Your task to perform on an android device: Open Google Image 0: 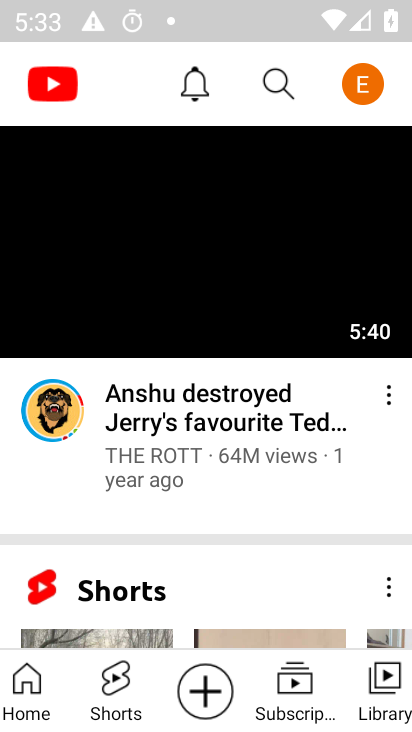
Step 0: press home button
Your task to perform on an android device: Open Google Image 1: 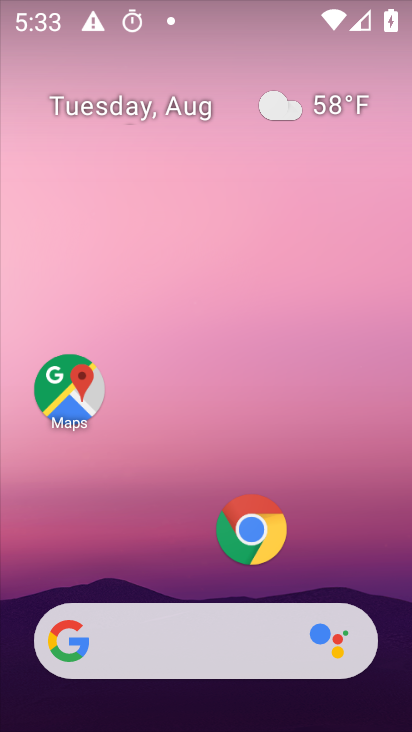
Step 1: drag from (173, 558) to (185, 188)
Your task to perform on an android device: Open Google Image 2: 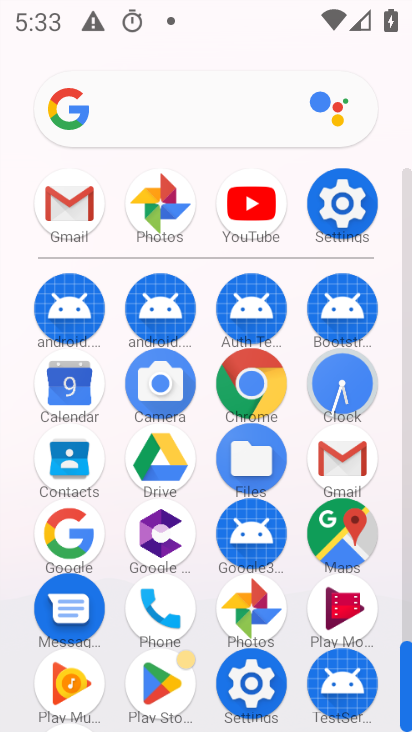
Step 2: click (51, 537)
Your task to perform on an android device: Open Google Image 3: 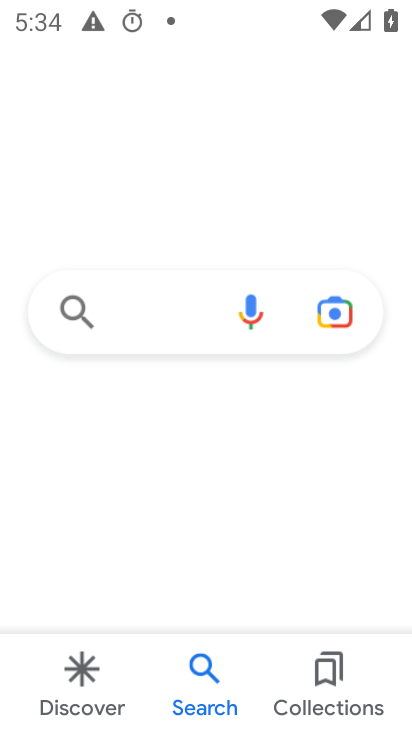
Step 3: task complete